Your task to perform on an android device: Add "logitech g933" to the cart on walmart, then select checkout. Image 0: 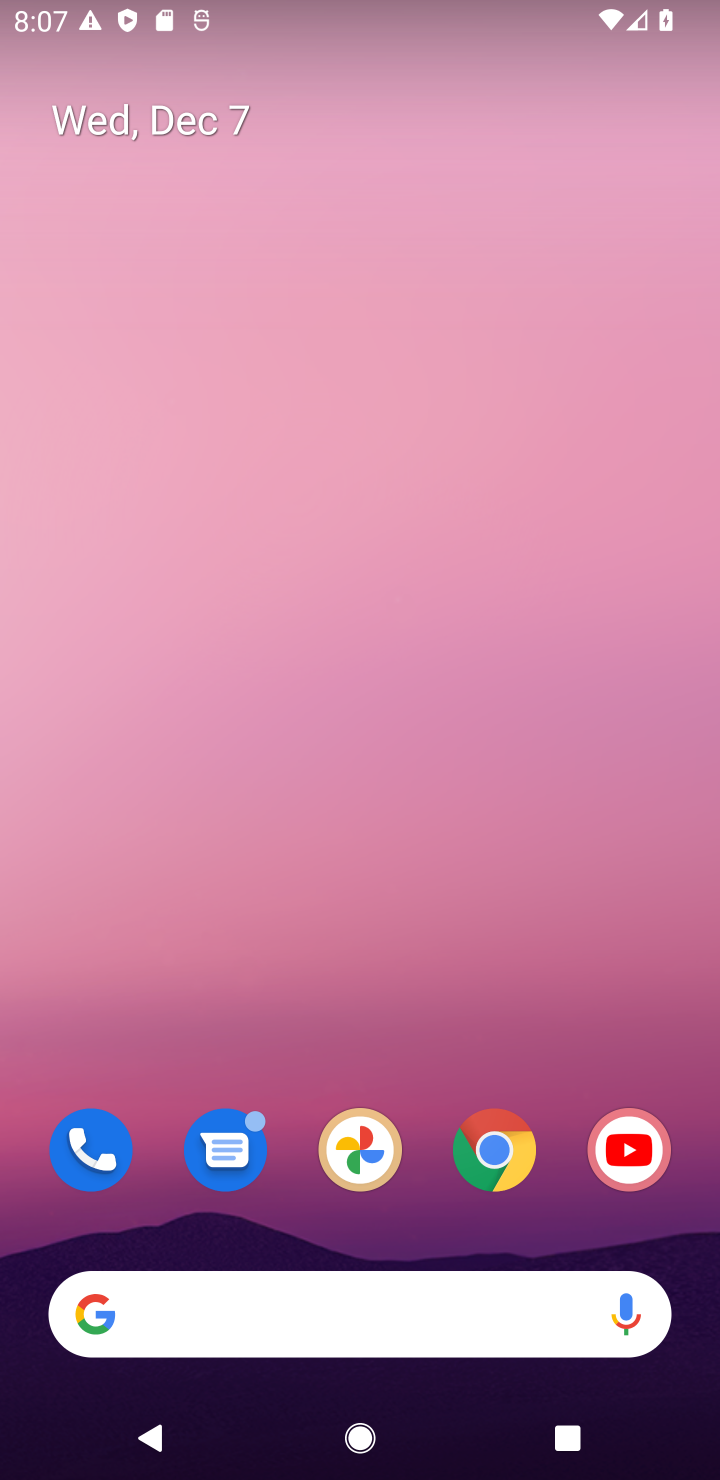
Step 0: task complete